Your task to perform on an android device: turn off smart reply in the gmail app Image 0: 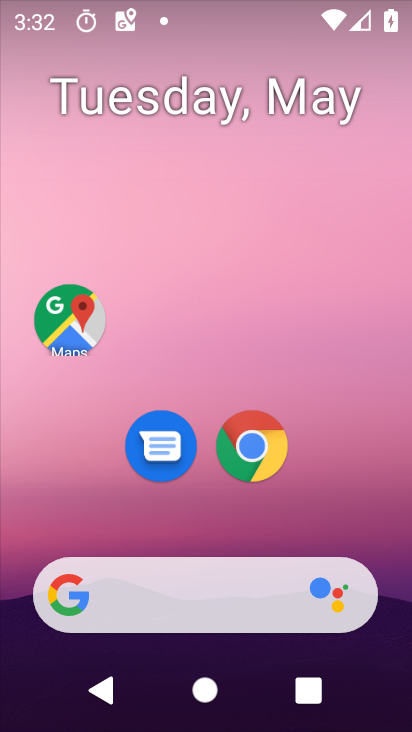
Step 0: drag from (216, 724) to (220, 152)
Your task to perform on an android device: turn off smart reply in the gmail app Image 1: 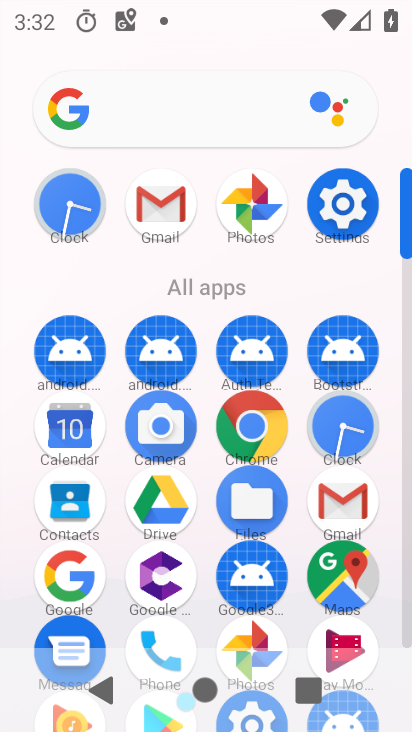
Step 1: click (334, 491)
Your task to perform on an android device: turn off smart reply in the gmail app Image 2: 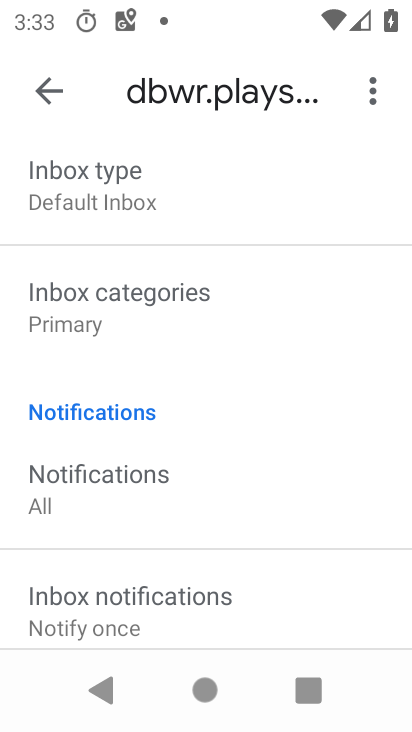
Step 2: drag from (215, 601) to (205, 305)
Your task to perform on an android device: turn off smart reply in the gmail app Image 3: 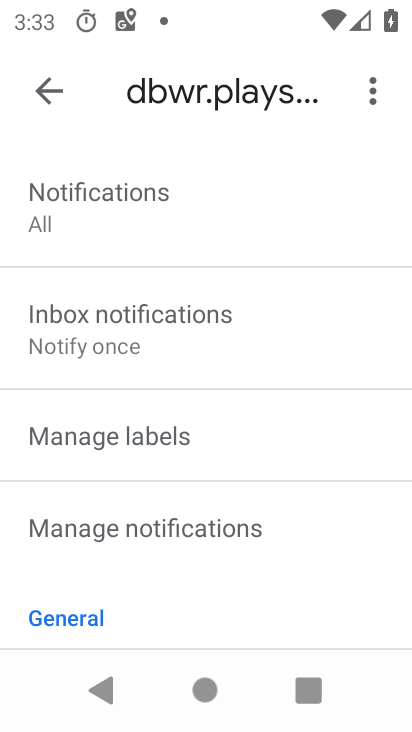
Step 3: drag from (200, 610) to (209, 286)
Your task to perform on an android device: turn off smart reply in the gmail app Image 4: 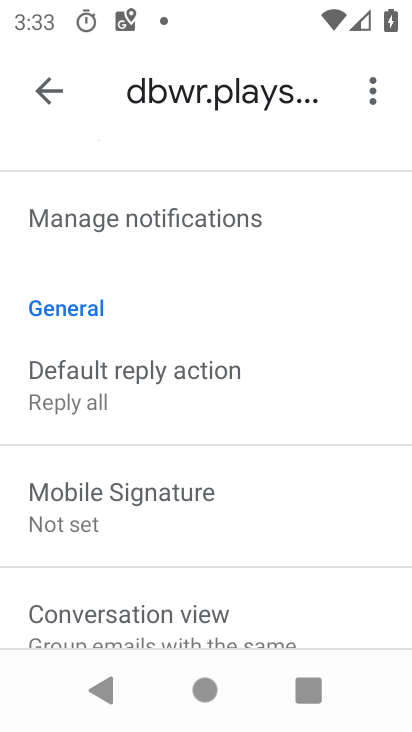
Step 4: drag from (204, 617) to (206, 222)
Your task to perform on an android device: turn off smart reply in the gmail app Image 5: 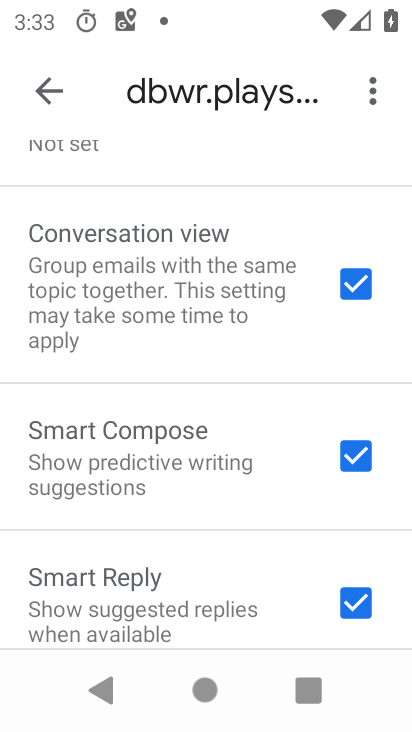
Step 5: click (361, 601)
Your task to perform on an android device: turn off smart reply in the gmail app Image 6: 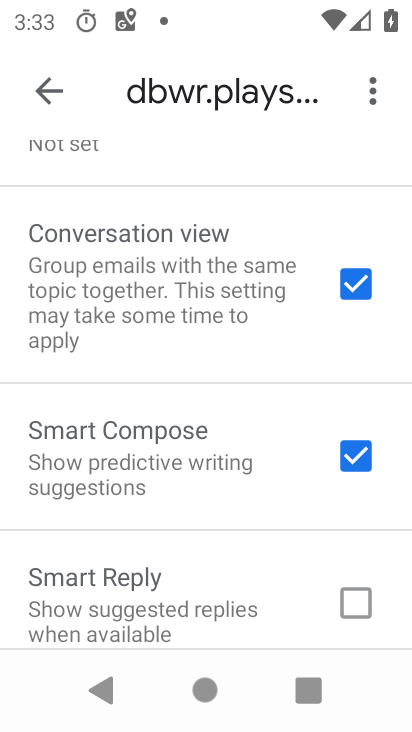
Step 6: task complete